Your task to perform on an android device: What's the weather going to be tomorrow? Image 0: 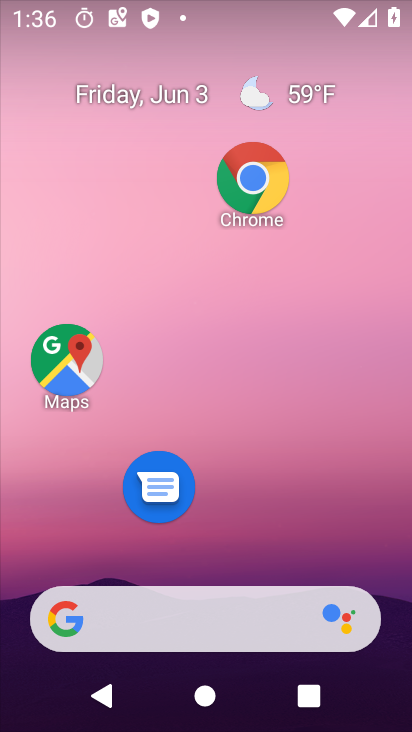
Step 0: press home button
Your task to perform on an android device: What's the weather going to be tomorrow? Image 1: 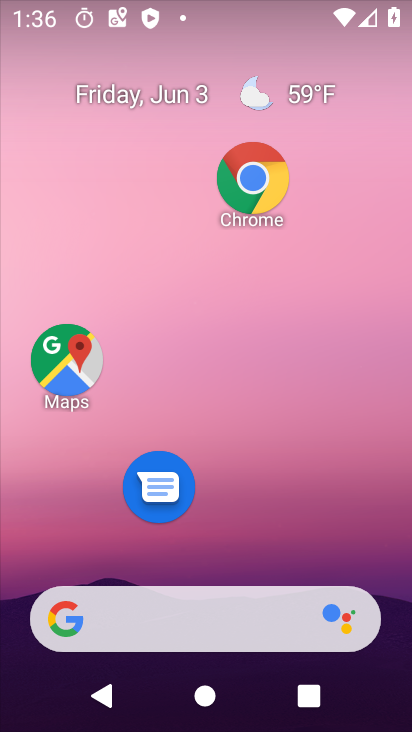
Step 1: click (315, 96)
Your task to perform on an android device: What's the weather going to be tomorrow? Image 2: 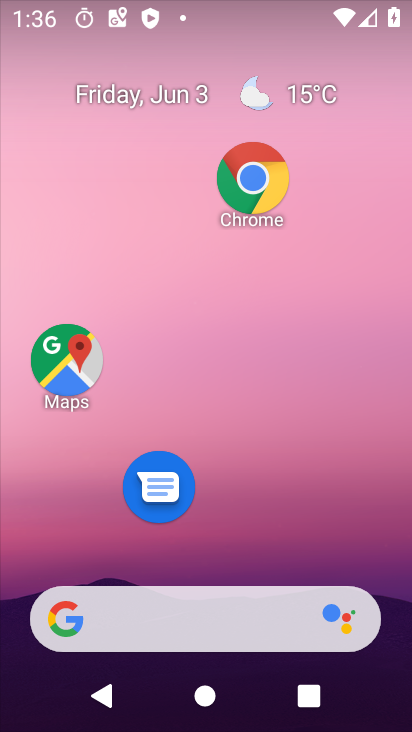
Step 2: click (305, 92)
Your task to perform on an android device: What's the weather going to be tomorrow? Image 3: 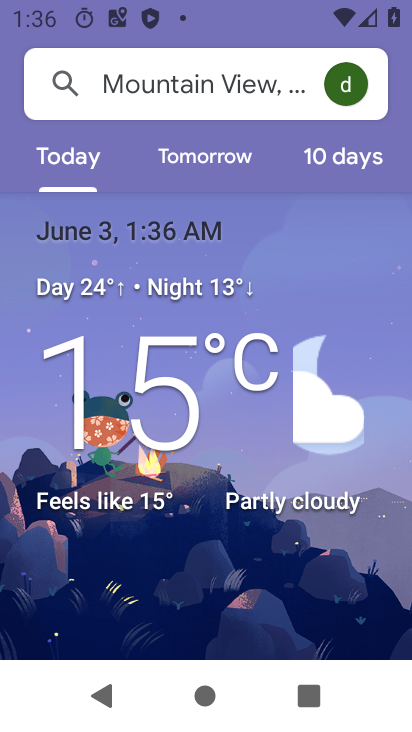
Step 3: click (209, 159)
Your task to perform on an android device: What's the weather going to be tomorrow? Image 4: 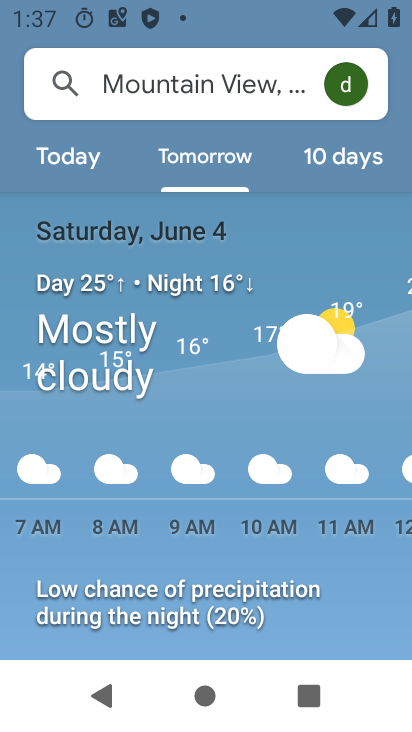
Step 4: task complete